Your task to perform on an android device: Search for vegetarian restaurants on Maps Image 0: 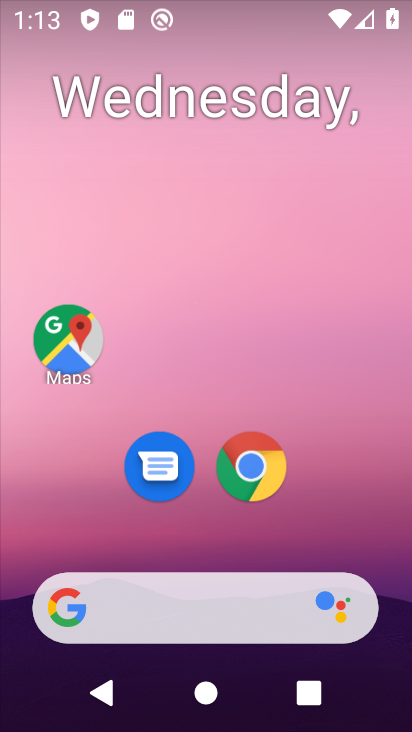
Step 0: press home button
Your task to perform on an android device: Search for vegetarian restaurants on Maps Image 1: 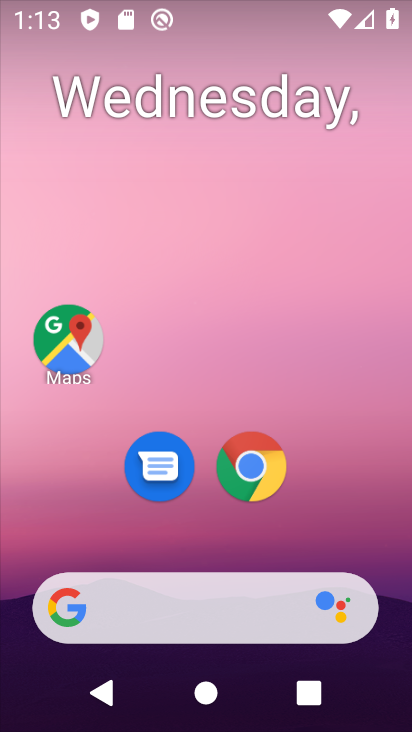
Step 1: press home button
Your task to perform on an android device: Search for vegetarian restaurants on Maps Image 2: 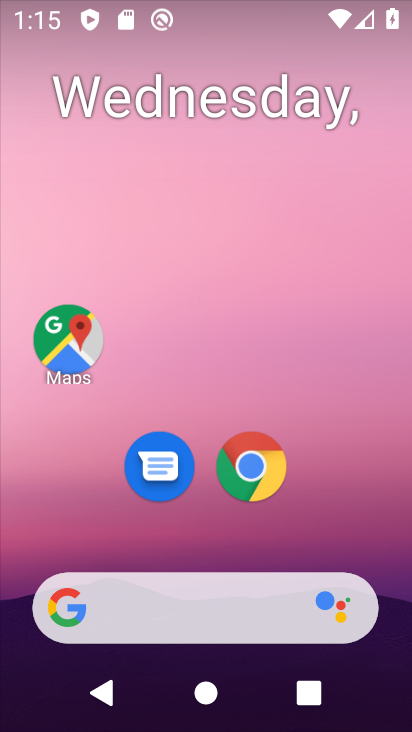
Step 2: drag from (364, 508) to (362, 89)
Your task to perform on an android device: Search for vegetarian restaurants on Maps Image 3: 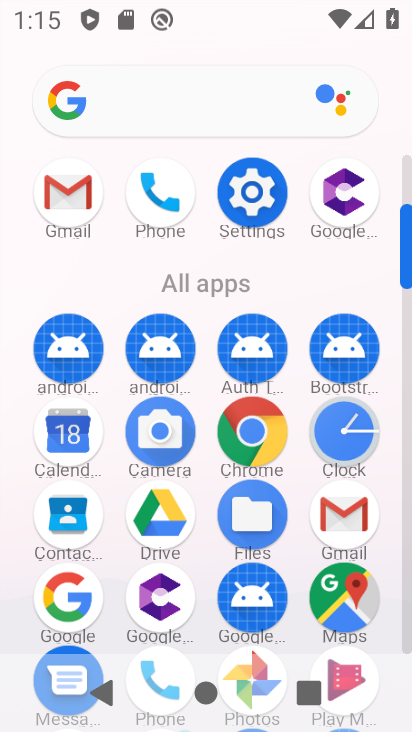
Step 3: click (322, 634)
Your task to perform on an android device: Search for vegetarian restaurants on Maps Image 4: 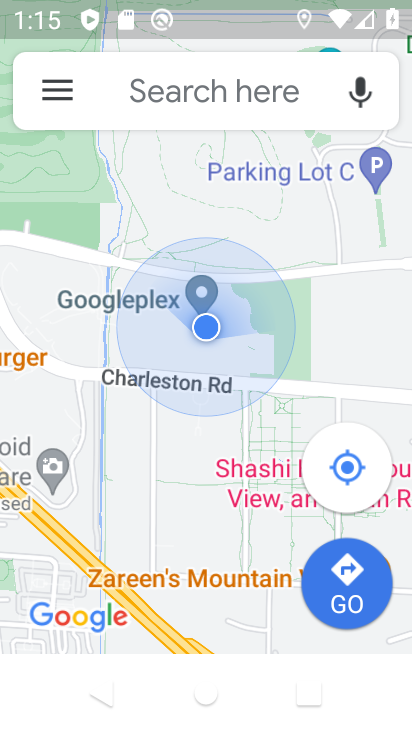
Step 4: click (240, 84)
Your task to perform on an android device: Search for vegetarian restaurants on Maps Image 5: 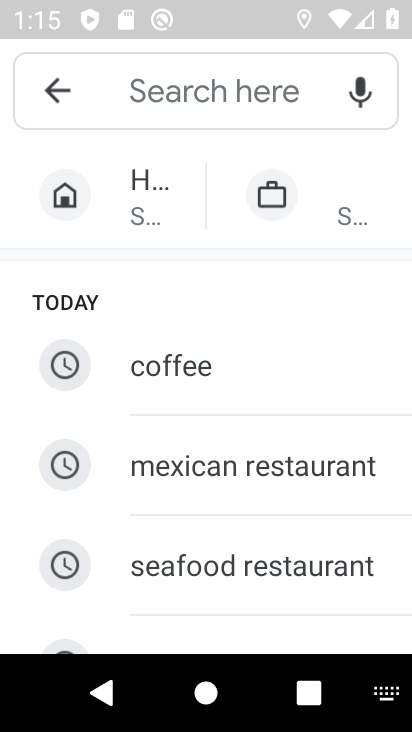
Step 5: type " vegetarian restaurants"
Your task to perform on an android device: Search for vegetarian restaurants on Maps Image 6: 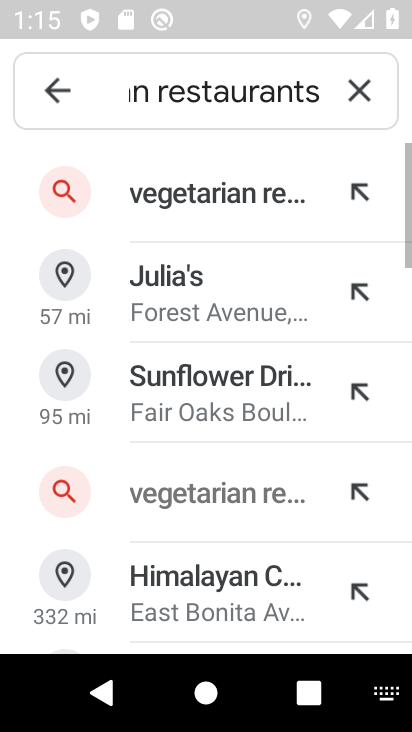
Step 6: click (237, 154)
Your task to perform on an android device: Search for vegetarian restaurants on Maps Image 7: 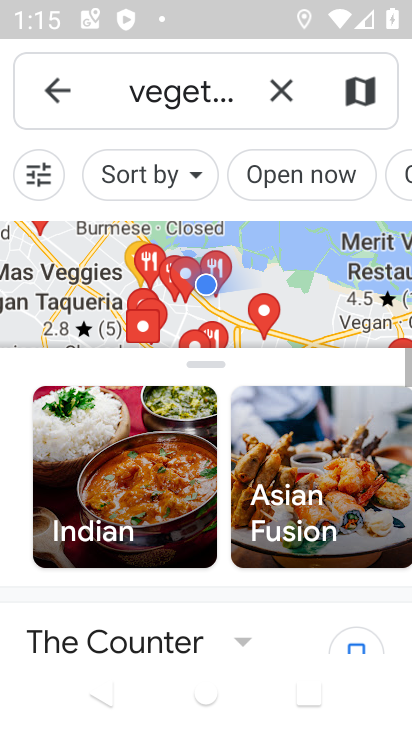
Step 7: task complete